Your task to perform on an android device: open a bookmark in the chrome app Image 0: 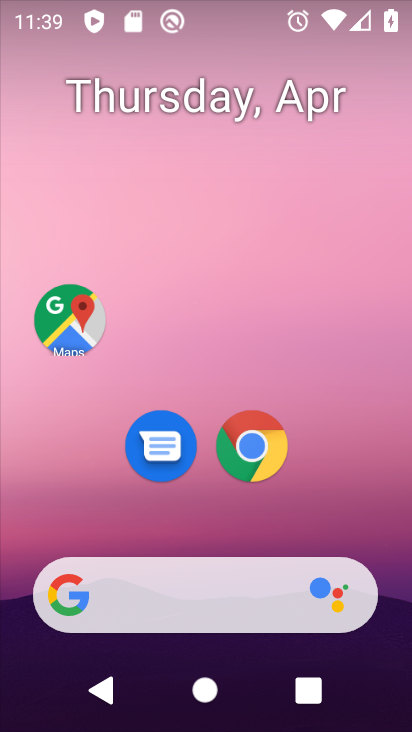
Step 0: click (270, 455)
Your task to perform on an android device: open a bookmark in the chrome app Image 1: 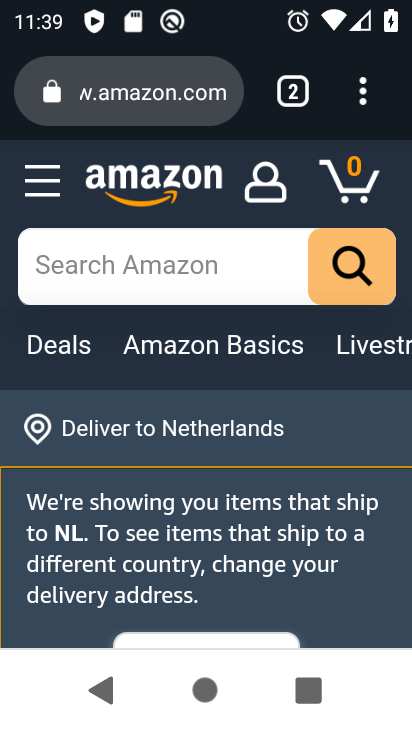
Step 1: click (360, 110)
Your task to perform on an android device: open a bookmark in the chrome app Image 2: 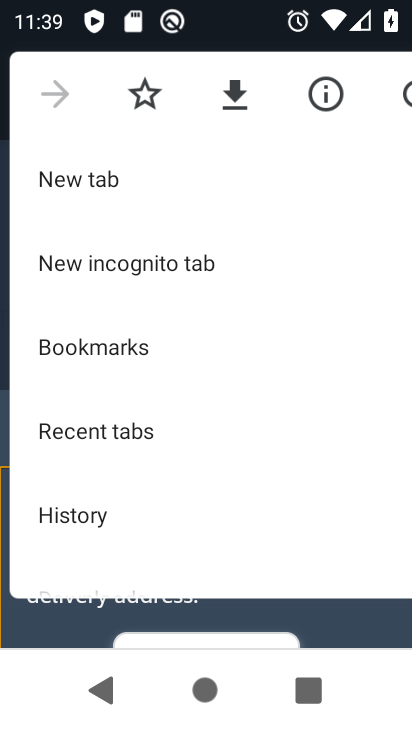
Step 2: click (302, 360)
Your task to perform on an android device: open a bookmark in the chrome app Image 3: 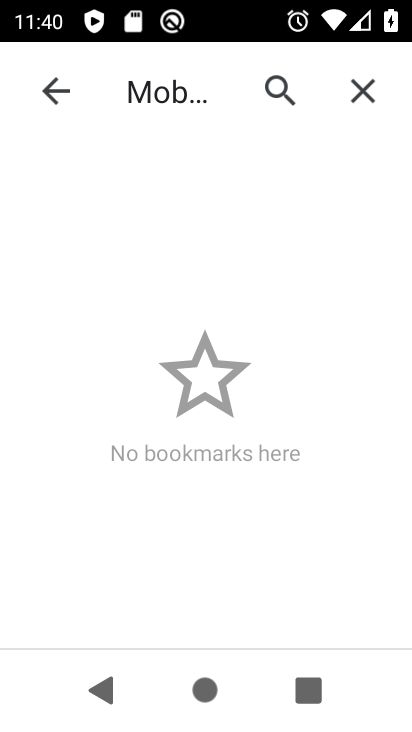
Step 3: task complete